Your task to perform on an android device: open app "Grab" (install if not already installed) and enter user name: "interspersion@gmail.com" and password: "aristocrats" Image 0: 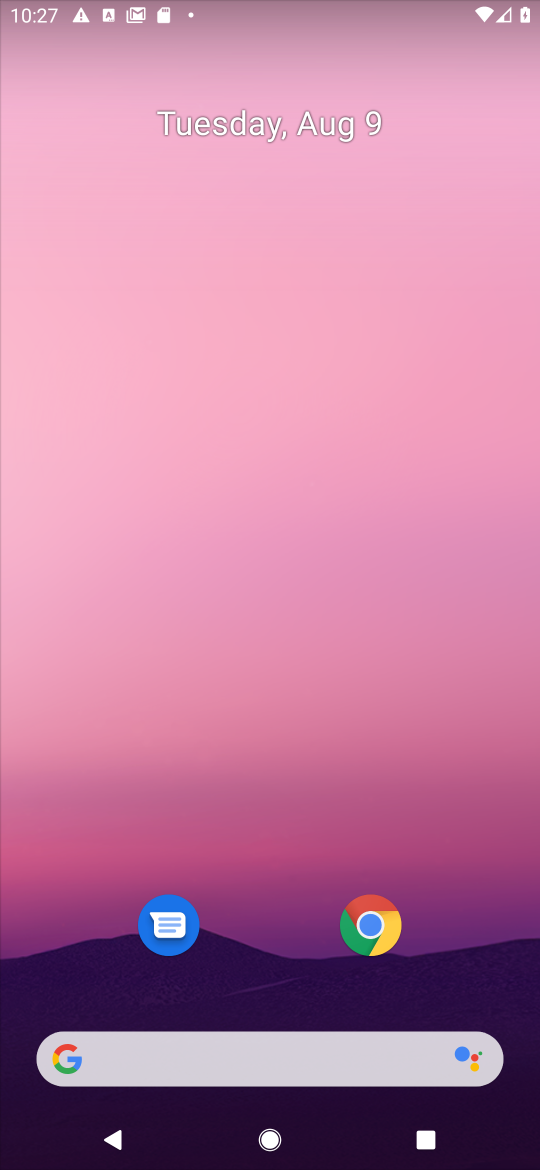
Step 0: drag from (266, 609) to (266, 148)
Your task to perform on an android device: open app "Grab" (install if not already installed) and enter user name: "interspersion@gmail.com" and password: "aristocrats" Image 1: 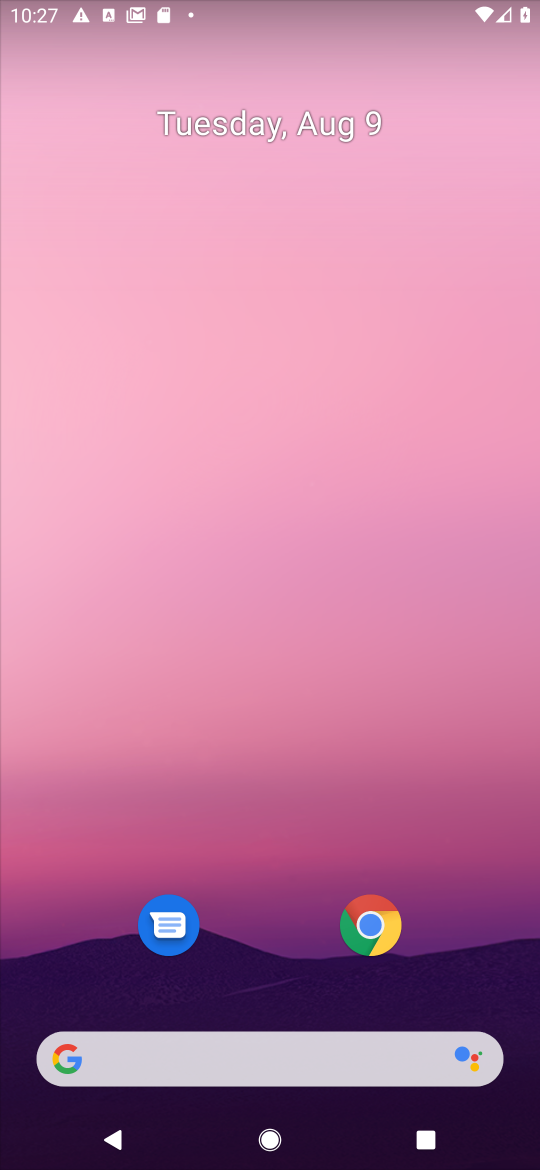
Step 1: drag from (246, 455) to (246, 276)
Your task to perform on an android device: open app "Grab" (install if not already installed) and enter user name: "interspersion@gmail.com" and password: "aristocrats" Image 2: 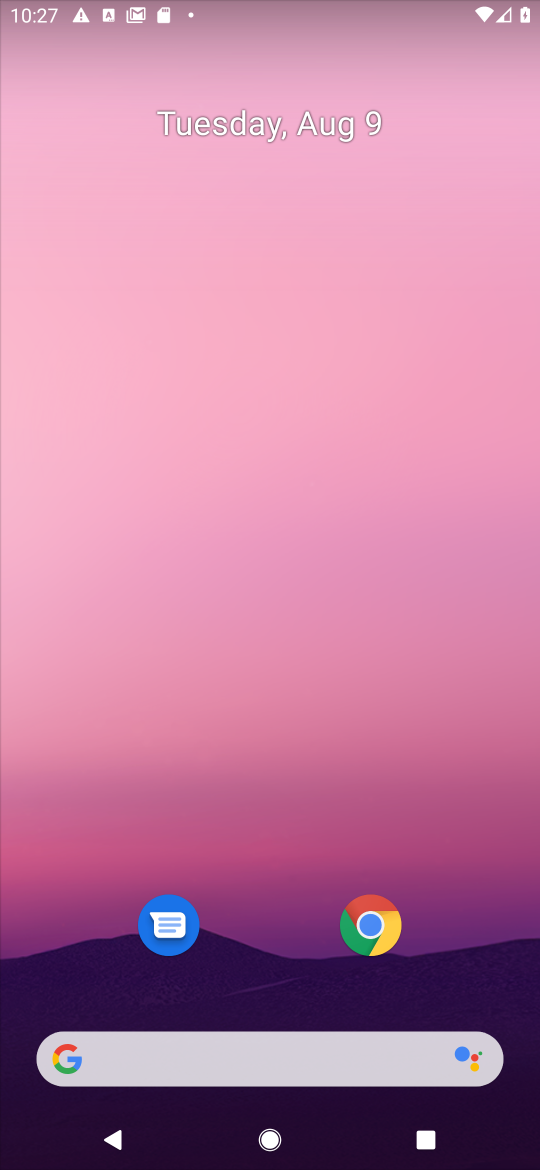
Step 2: drag from (237, 664) to (237, 83)
Your task to perform on an android device: open app "Grab" (install if not already installed) and enter user name: "interspersion@gmail.com" and password: "aristocrats" Image 3: 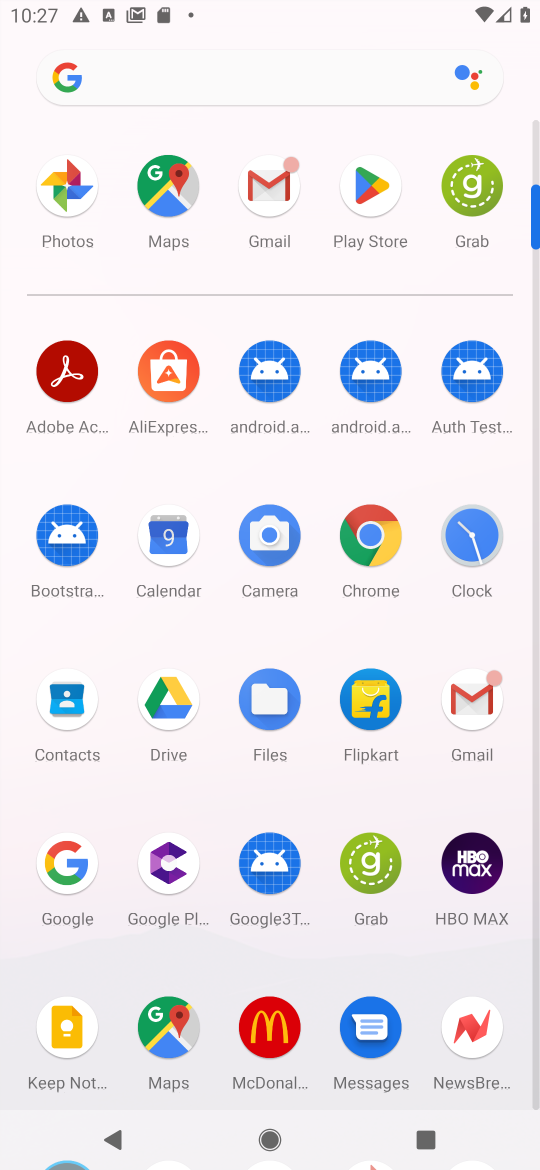
Step 3: click (367, 176)
Your task to perform on an android device: open app "Grab" (install if not already installed) and enter user name: "interspersion@gmail.com" and password: "aristocrats" Image 4: 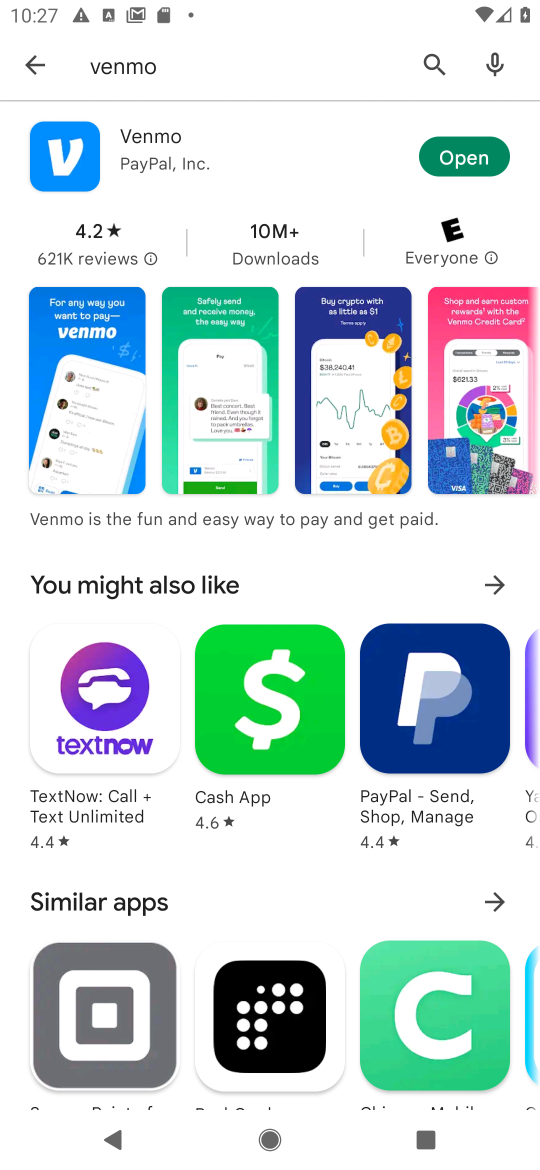
Step 4: click (46, 67)
Your task to perform on an android device: open app "Grab" (install if not already installed) and enter user name: "interspersion@gmail.com" and password: "aristocrats" Image 5: 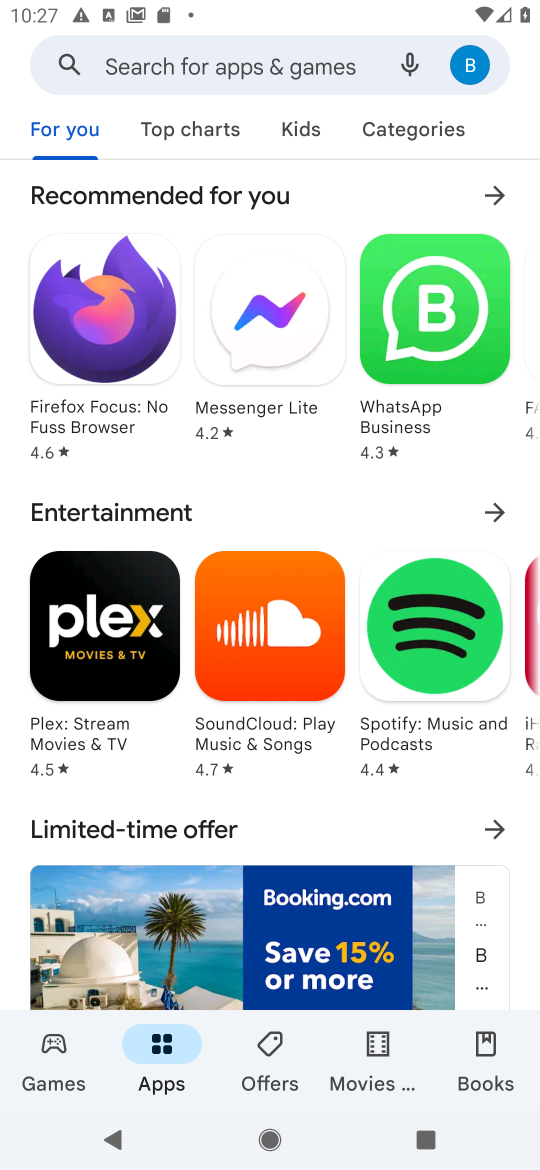
Step 5: click (170, 61)
Your task to perform on an android device: open app "Grab" (install if not already installed) and enter user name: "interspersion@gmail.com" and password: "aristocrats" Image 6: 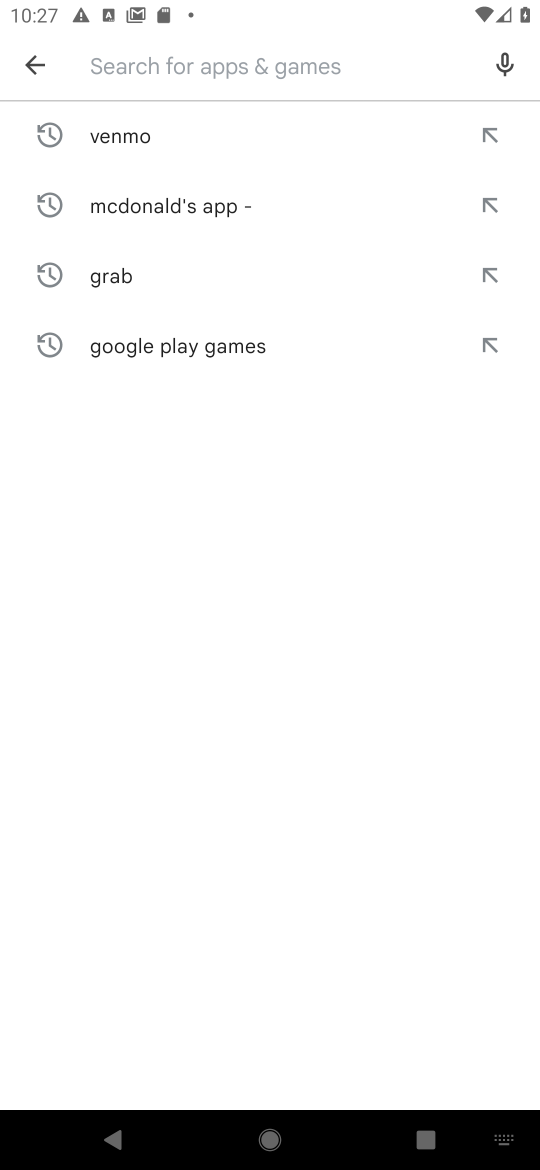
Step 6: type "Grab"
Your task to perform on an android device: open app "Grab" (install if not already installed) and enter user name: "interspersion@gmail.com" and password: "aristocrats" Image 7: 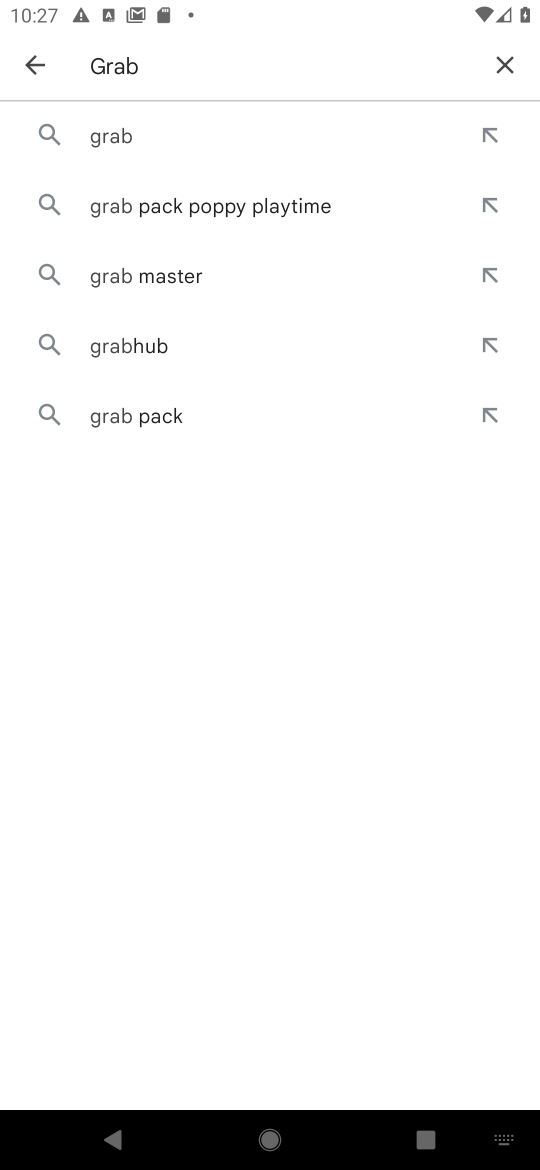
Step 7: click (103, 150)
Your task to perform on an android device: open app "Grab" (install if not already installed) and enter user name: "interspersion@gmail.com" and password: "aristocrats" Image 8: 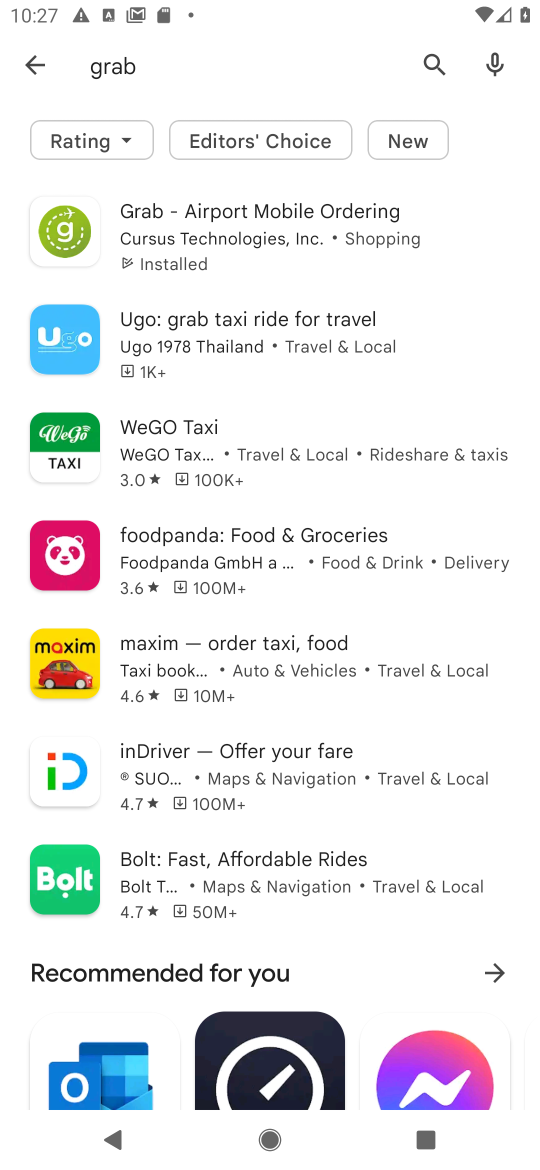
Step 8: click (181, 240)
Your task to perform on an android device: open app "Grab" (install if not already installed) and enter user name: "interspersion@gmail.com" and password: "aristocrats" Image 9: 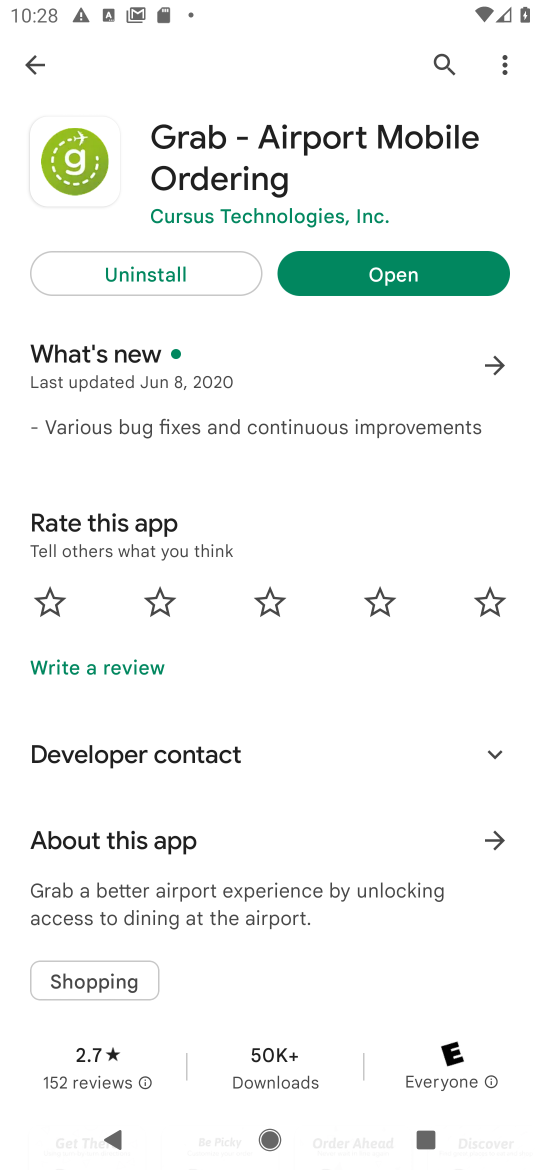
Step 9: click (355, 281)
Your task to perform on an android device: open app "Grab" (install if not already installed) and enter user name: "interspersion@gmail.com" and password: "aristocrats" Image 10: 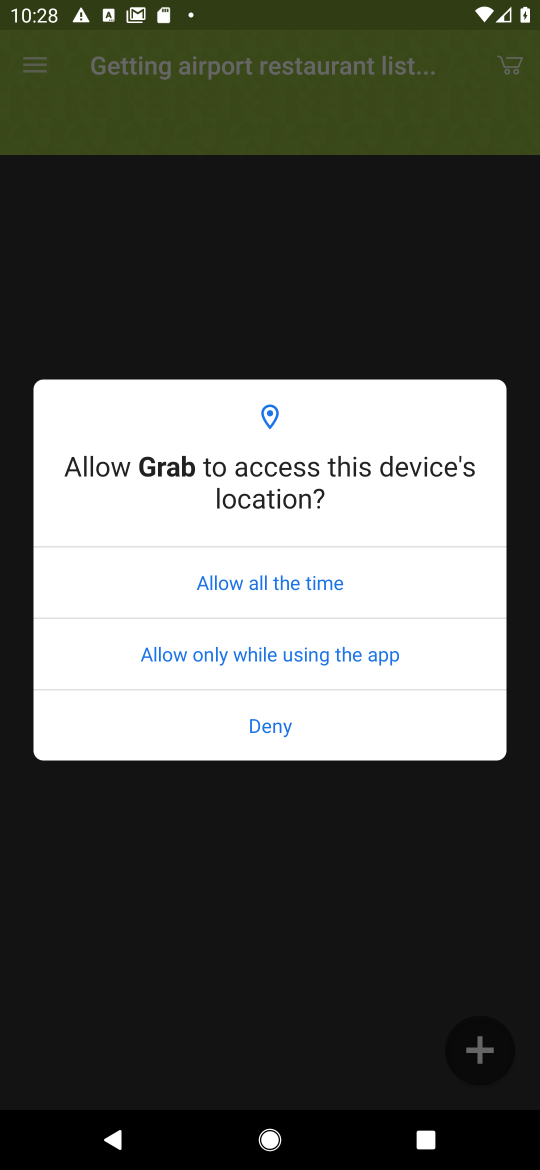
Step 10: click (258, 565)
Your task to perform on an android device: open app "Grab" (install if not already installed) and enter user name: "interspersion@gmail.com" and password: "aristocrats" Image 11: 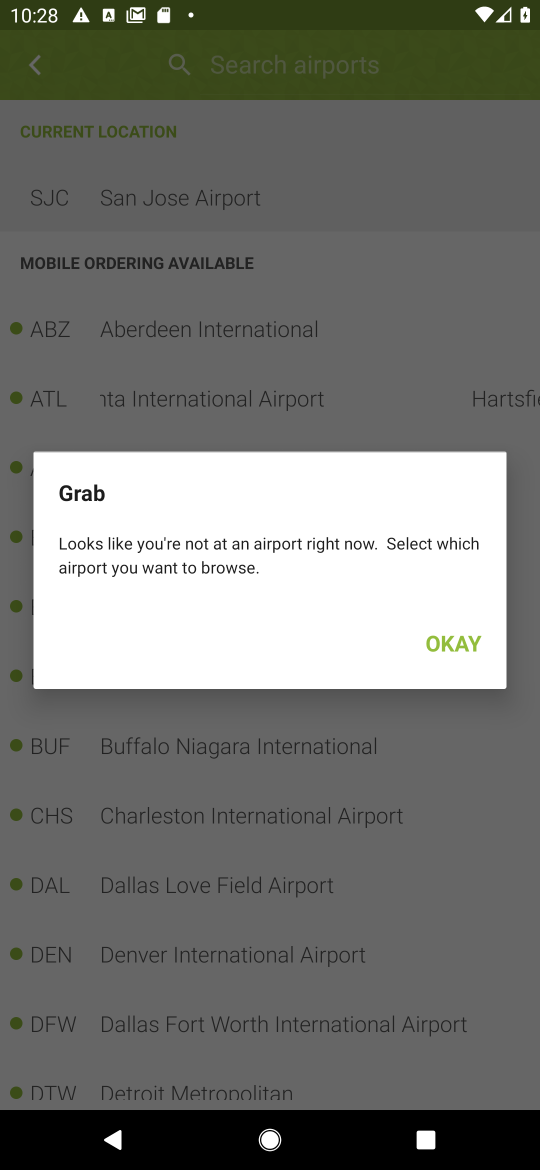
Step 11: click (467, 632)
Your task to perform on an android device: open app "Grab" (install if not already installed) and enter user name: "interspersion@gmail.com" and password: "aristocrats" Image 12: 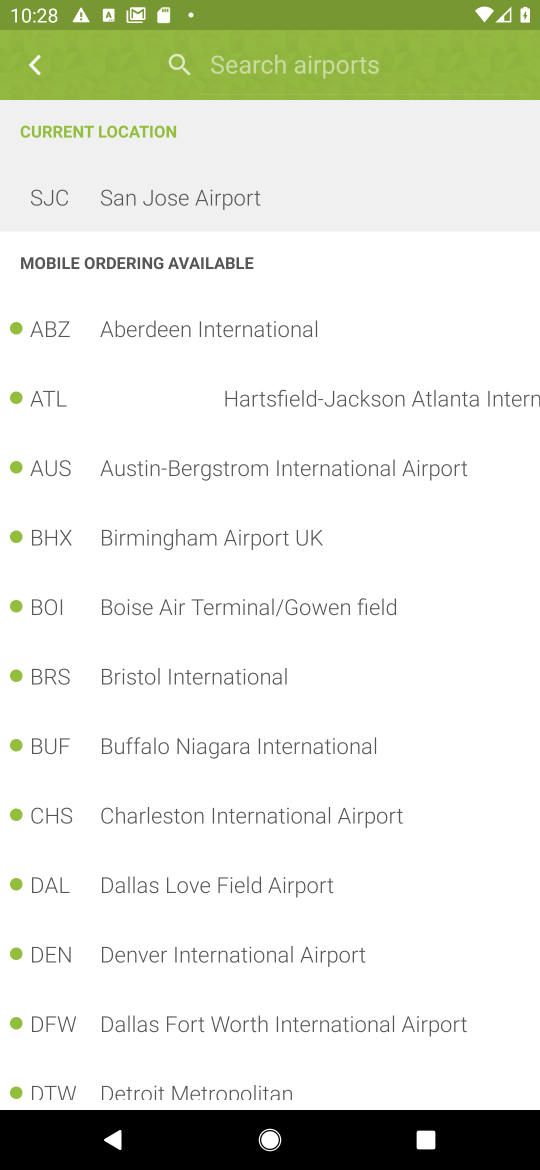
Step 12: click (37, 68)
Your task to perform on an android device: open app "Grab" (install if not already installed) and enter user name: "interspersion@gmail.com" and password: "aristocrats" Image 13: 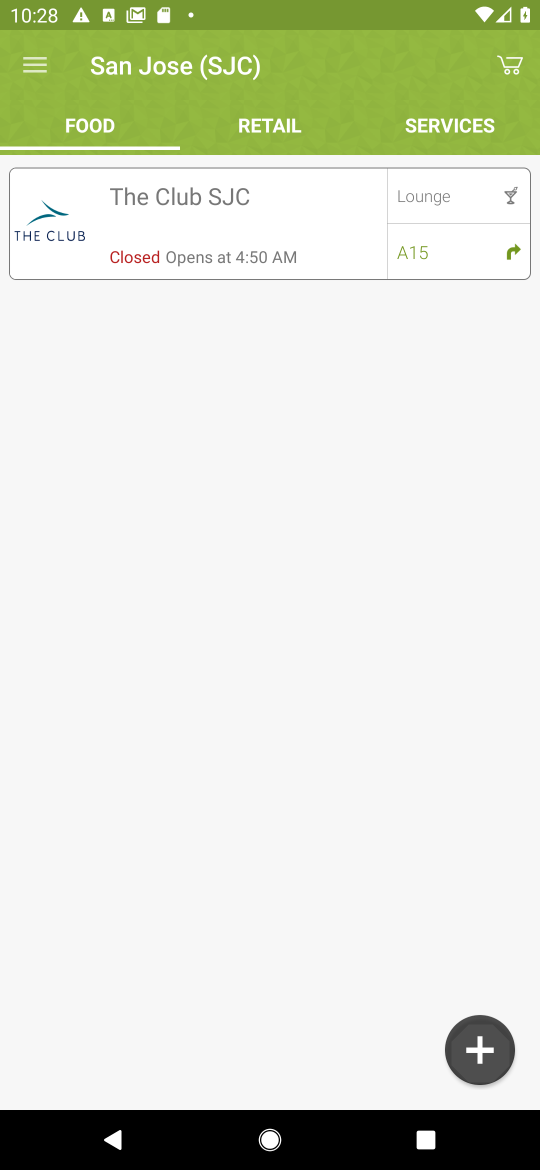
Step 13: click (26, 68)
Your task to perform on an android device: open app "Grab" (install if not already installed) and enter user name: "interspersion@gmail.com" and password: "aristocrats" Image 14: 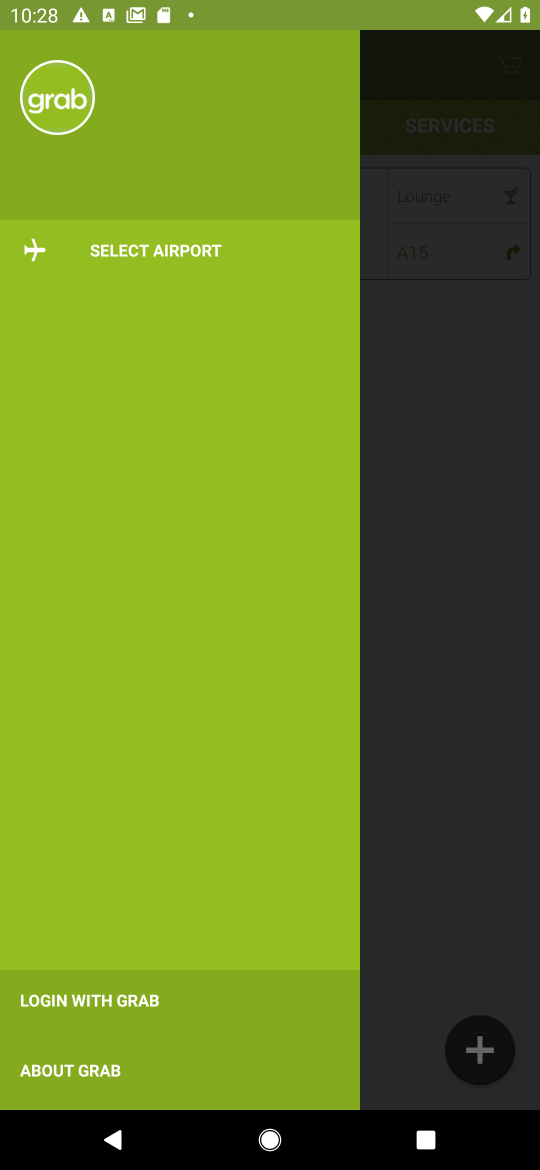
Step 14: click (56, 107)
Your task to perform on an android device: open app "Grab" (install if not already installed) and enter user name: "interspersion@gmail.com" and password: "aristocrats" Image 15: 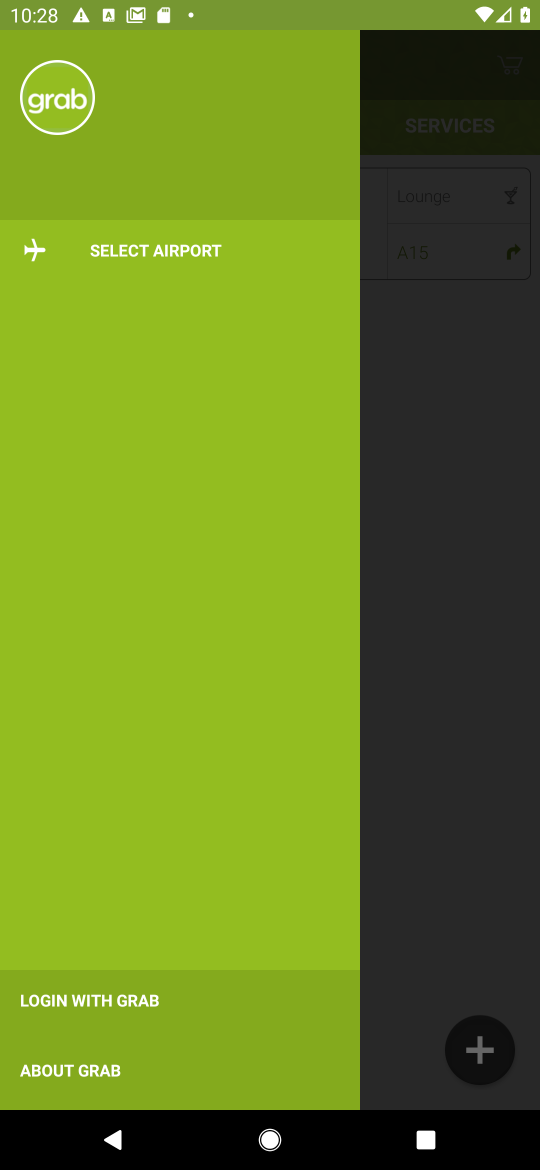
Step 15: click (94, 1001)
Your task to perform on an android device: open app "Grab" (install if not already installed) and enter user name: "interspersion@gmail.com" and password: "aristocrats" Image 16: 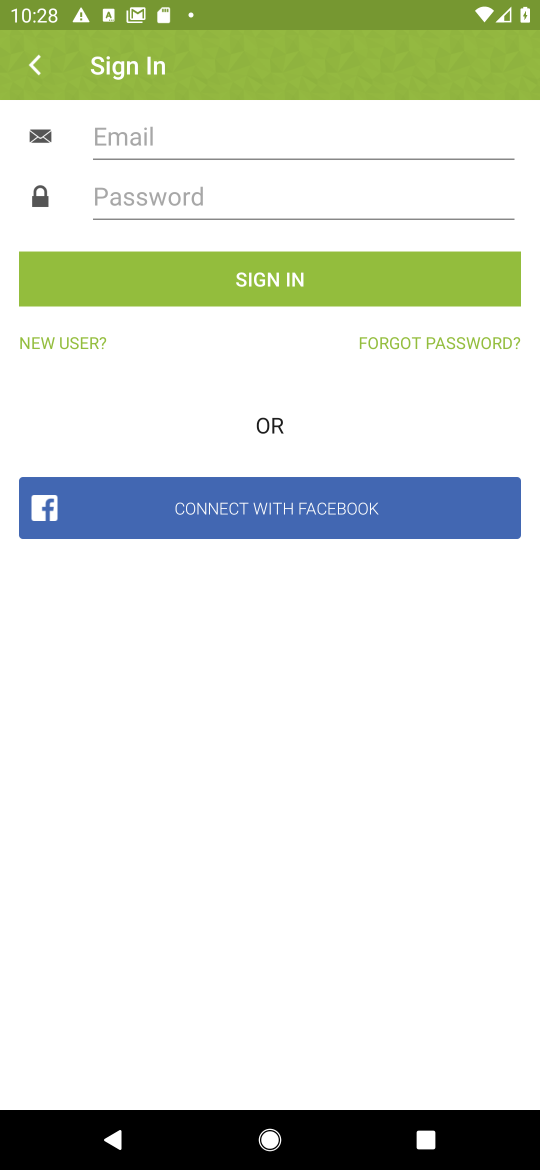
Step 16: click (308, 124)
Your task to perform on an android device: open app "Grab" (install if not already installed) and enter user name: "interspersion@gmail.com" and password: "aristocrats" Image 17: 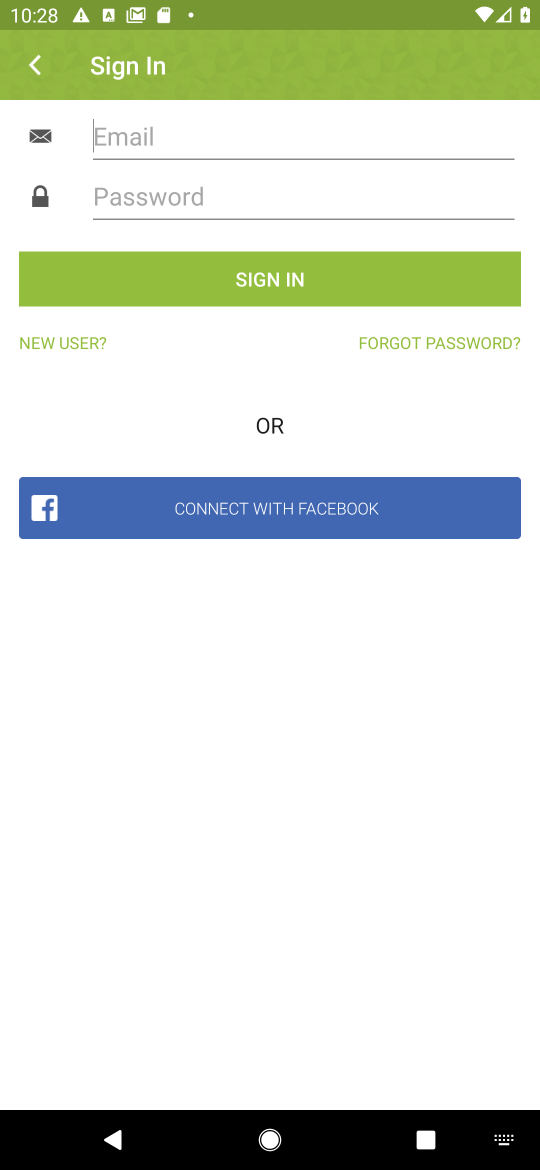
Step 17: type "interspersion@gmail.com"
Your task to perform on an android device: open app "Grab" (install if not already installed) and enter user name: "interspersion@gmail.com" and password: "aristocrats" Image 18: 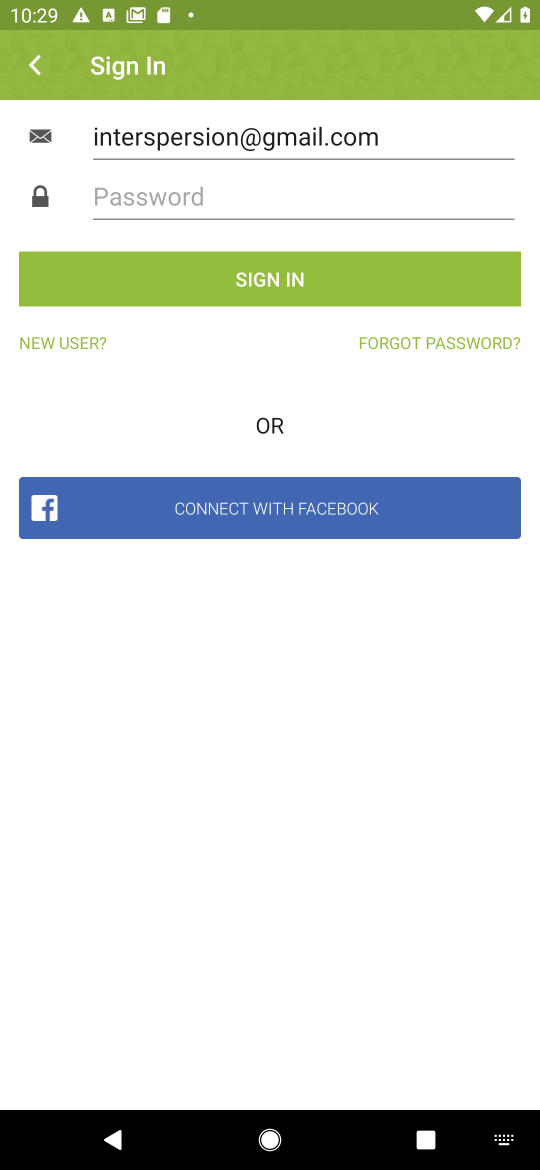
Step 18: click (152, 179)
Your task to perform on an android device: open app "Grab" (install if not already installed) and enter user name: "interspersion@gmail.com" and password: "aristocrats" Image 19: 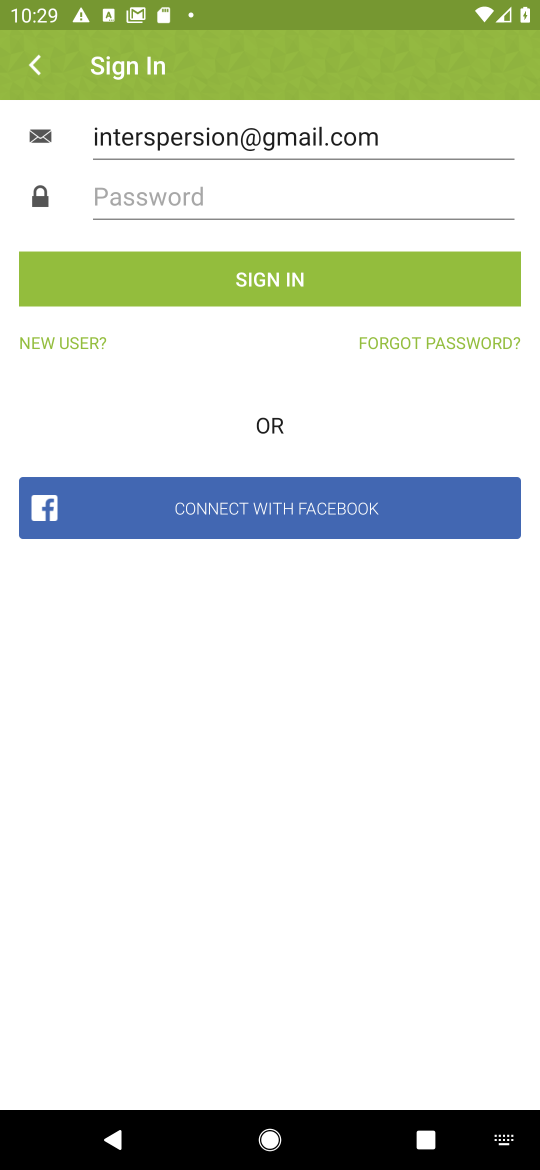
Step 19: click (157, 198)
Your task to perform on an android device: open app "Grab" (install if not already installed) and enter user name: "interspersion@gmail.com" and password: "aristocrats" Image 20: 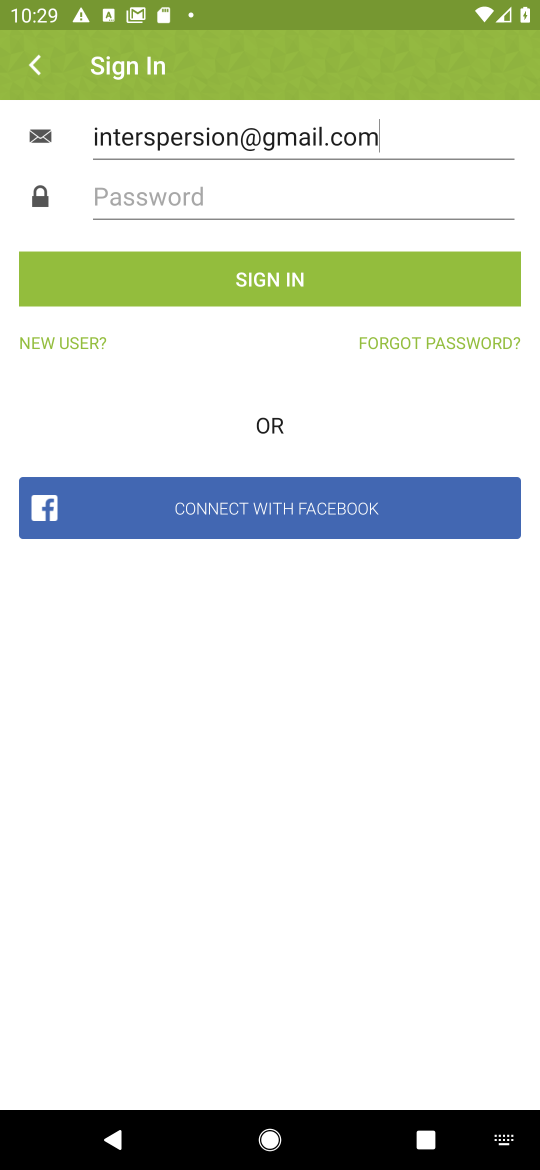
Step 20: click (157, 198)
Your task to perform on an android device: open app "Grab" (install if not already installed) and enter user name: "interspersion@gmail.com" and password: "aristocrats" Image 21: 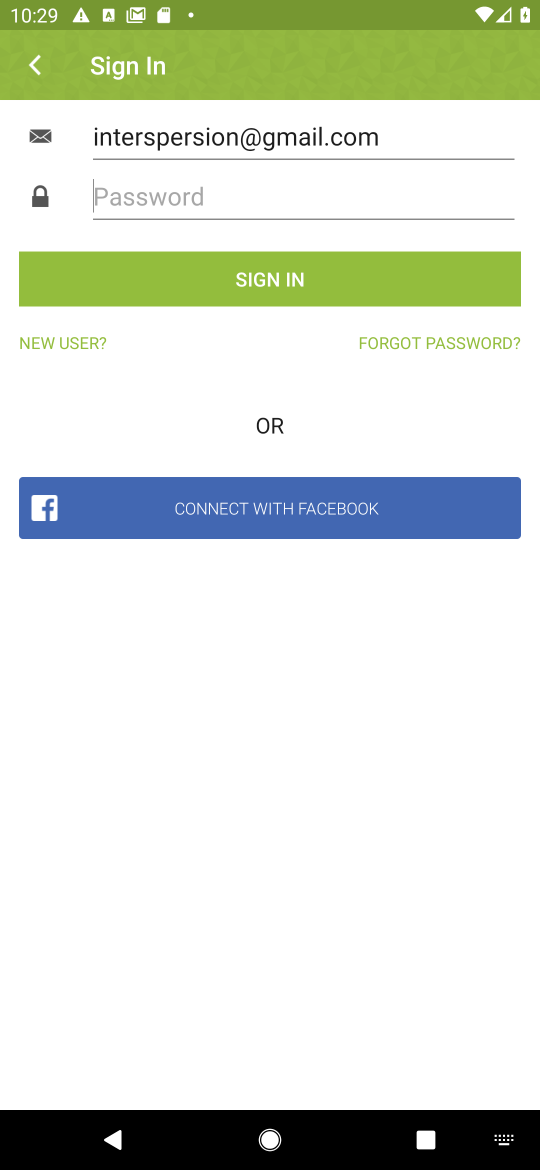
Step 21: click (157, 198)
Your task to perform on an android device: open app "Grab" (install if not already installed) and enter user name: "interspersion@gmail.com" and password: "aristocrats" Image 22: 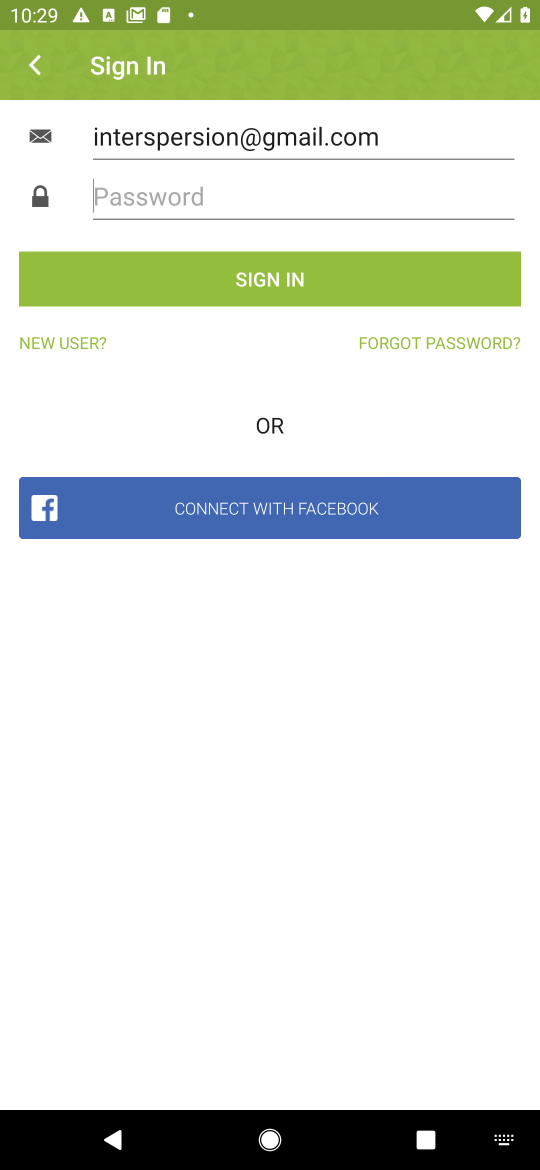
Step 22: type "aristocrats"
Your task to perform on an android device: open app "Grab" (install if not already installed) and enter user name: "interspersion@gmail.com" and password: "aristocrats" Image 23: 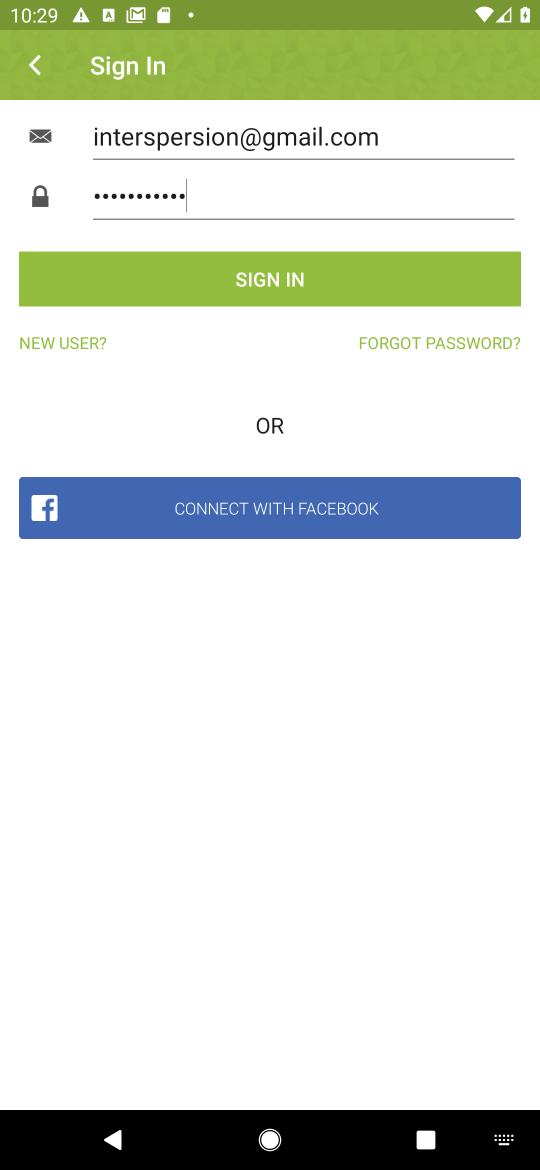
Step 23: task complete